Your task to perform on an android device: see tabs open on other devices in the chrome app Image 0: 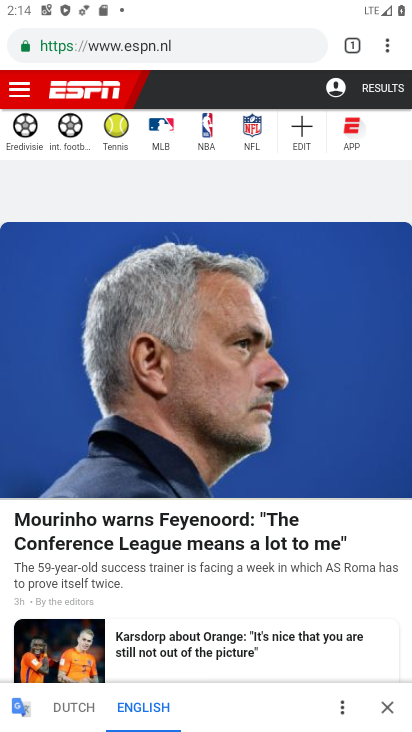
Step 0: drag from (388, 45) to (236, 269)
Your task to perform on an android device: see tabs open on other devices in the chrome app Image 1: 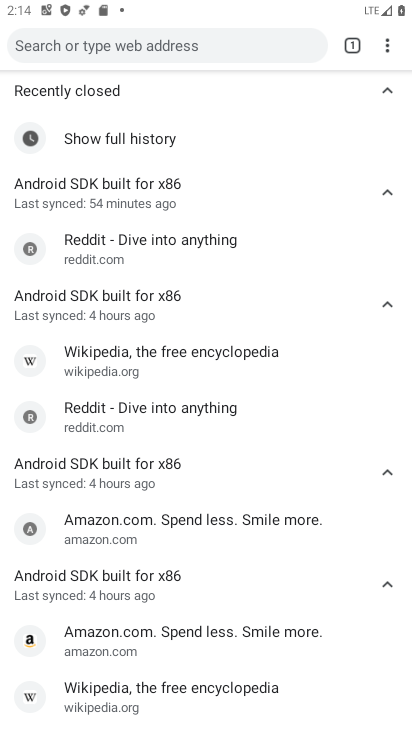
Step 1: task complete